Your task to perform on an android device: turn off notifications in google photos Image 0: 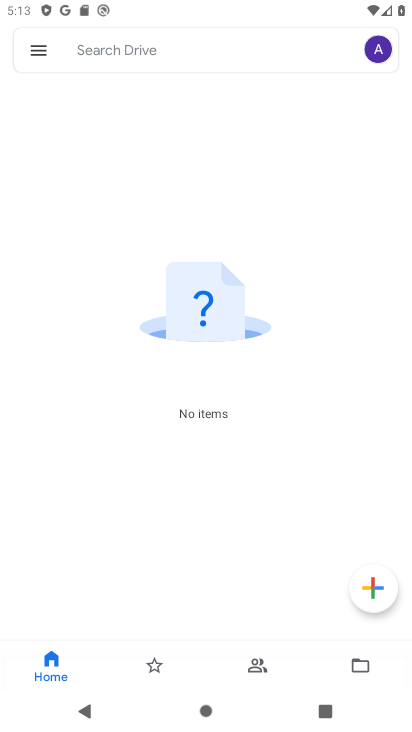
Step 0: press home button
Your task to perform on an android device: turn off notifications in google photos Image 1: 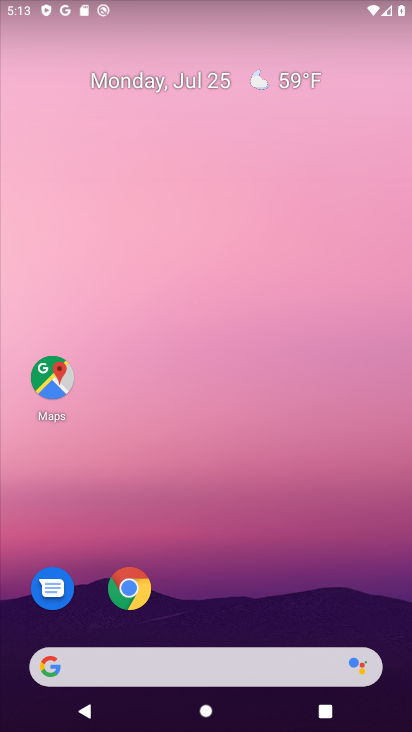
Step 1: drag from (271, 553) to (285, 32)
Your task to perform on an android device: turn off notifications in google photos Image 2: 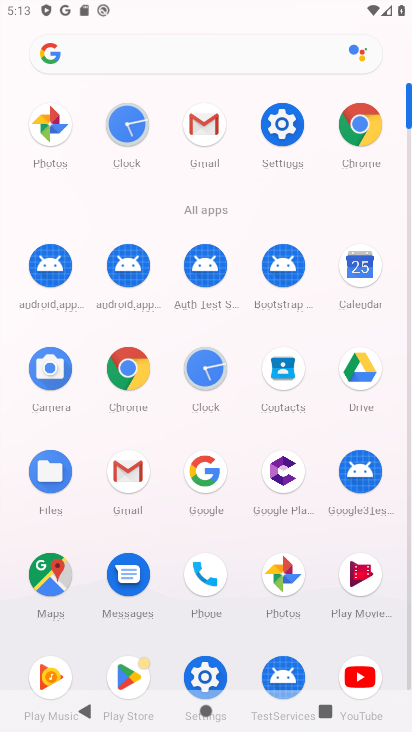
Step 2: click (290, 574)
Your task to perform on an android device: turn off notifications in google photos Image 3: 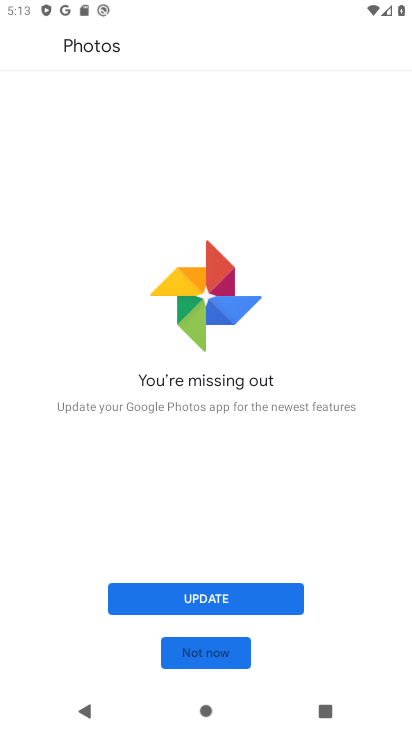
Step 3: click (216, 652)
Your task to perform on an android device: turn off notifications in google photos Image 4: 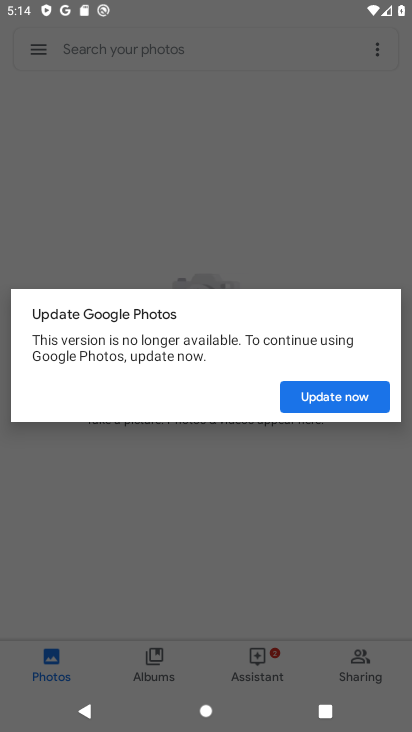
Step 4: task complete